Your task to perform on an android device: Go to battery settings Image 0: 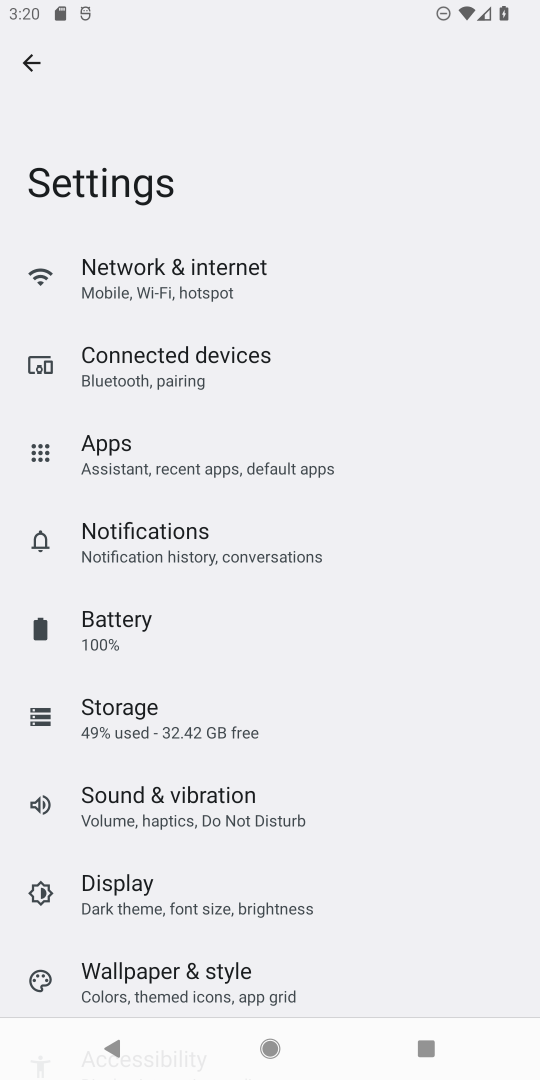
Step 0: click (218, 629)
Your task to perform on an android device: Go to battery settings Image 1: 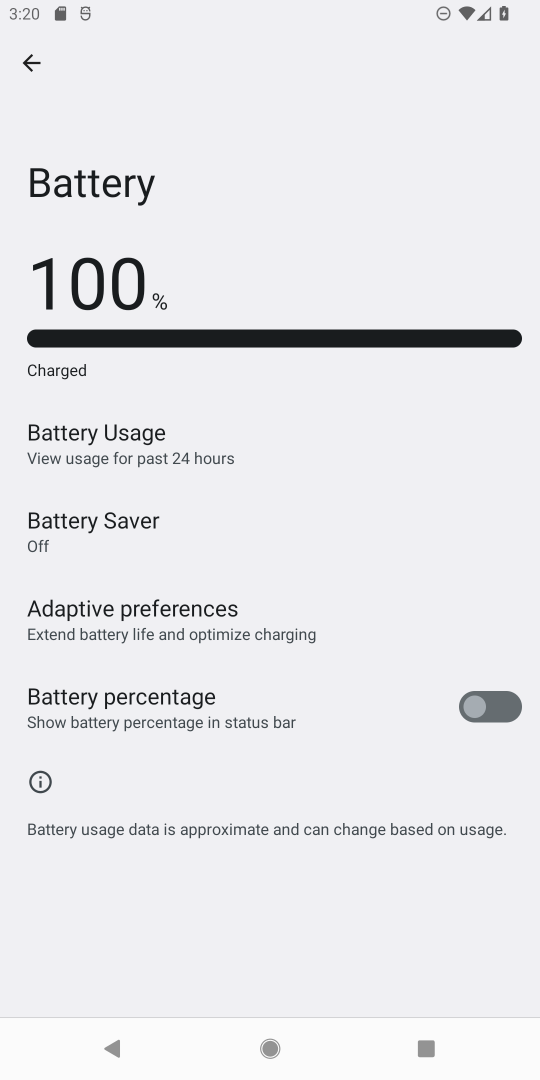
Step 1: task complete